Your task to perform on an android device: Open Android settings Image 0: 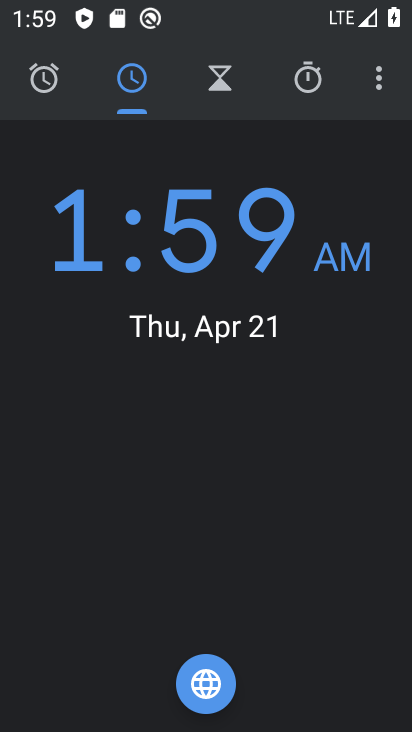
Step 0: press home button
Your task to perform on an android device: Open Android settings Image 1: 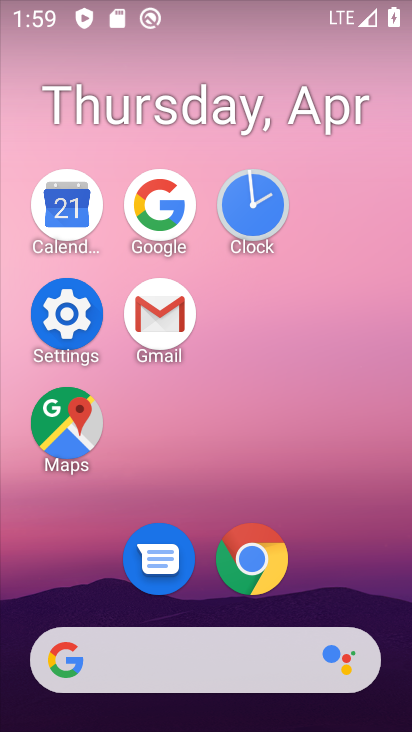
Step 1: click (64, 320)
Your task to perform on an android device: Open Android settings Image 2: 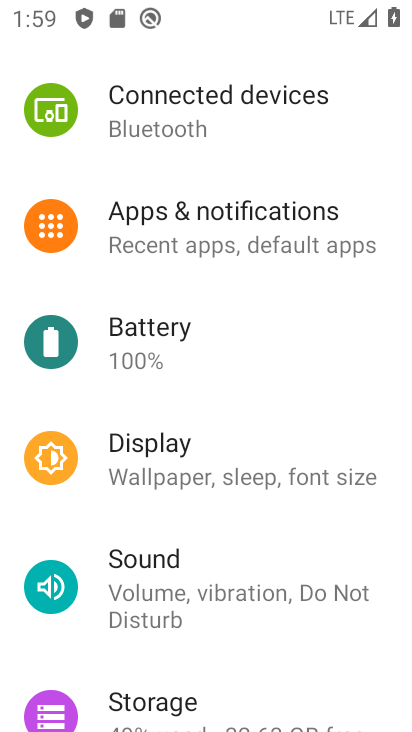
Step 2: task complete